Your task to perform on an android device: change text size in settings app Image 0: 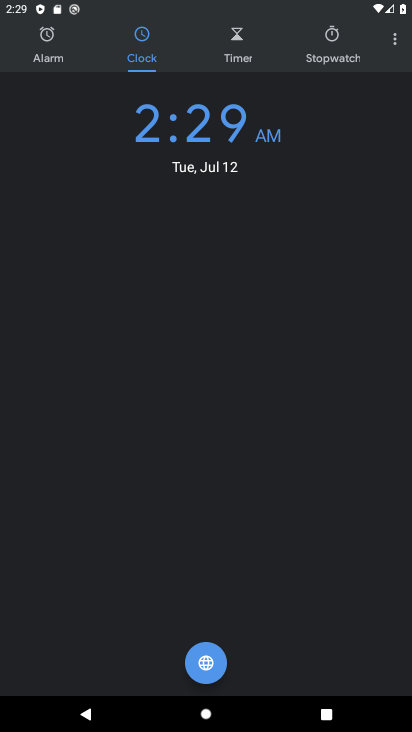
Step 0: press home button
Your task to perform on an android device: change text size in settings app Image 1: 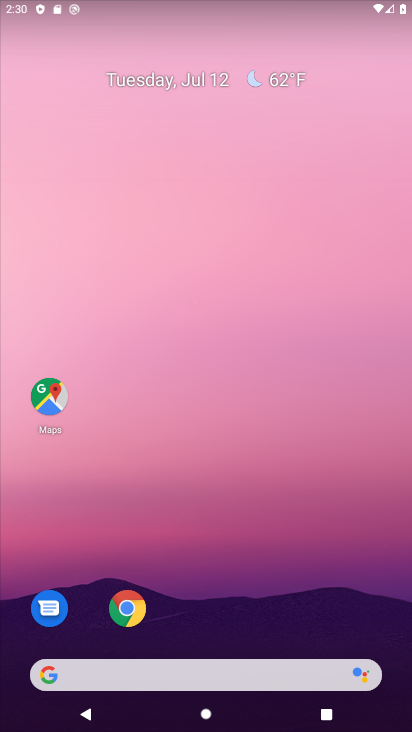
Step 1: drag from (166, 674) to (277, 238)
Your task to perform on an android device: change text size in settings app Image 2: 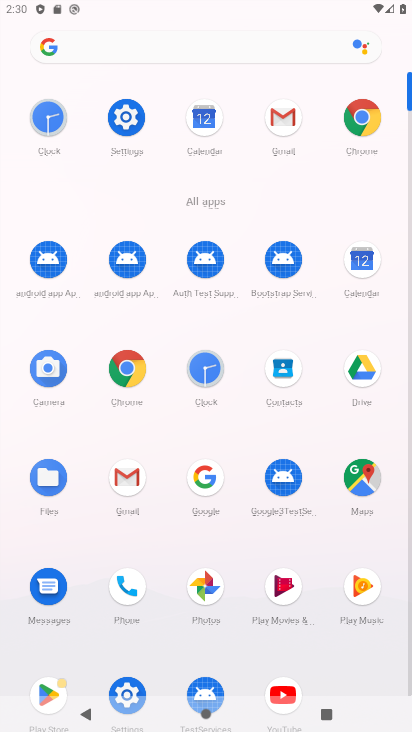
Step 2: click (127, 111)
Your task to perform on an android device: change text size in settings app Image 3: 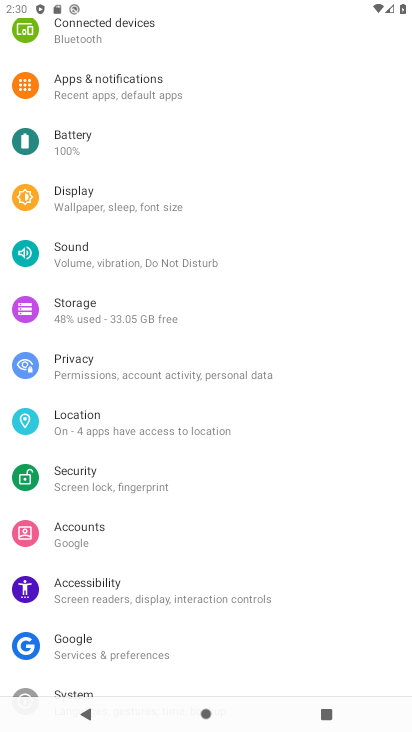
Step 3: click (158, 207)
Your task to perform on an android device: change text size in settings app Image 4: 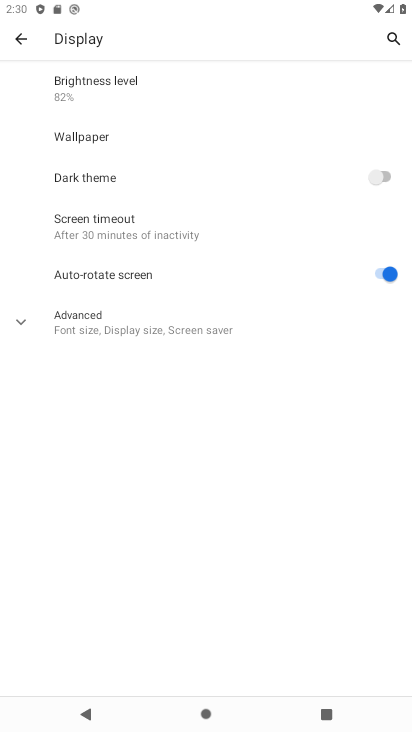
Step 4: click (99, 324)
Your task to perform on an android device: change text size in settings app Image 5: 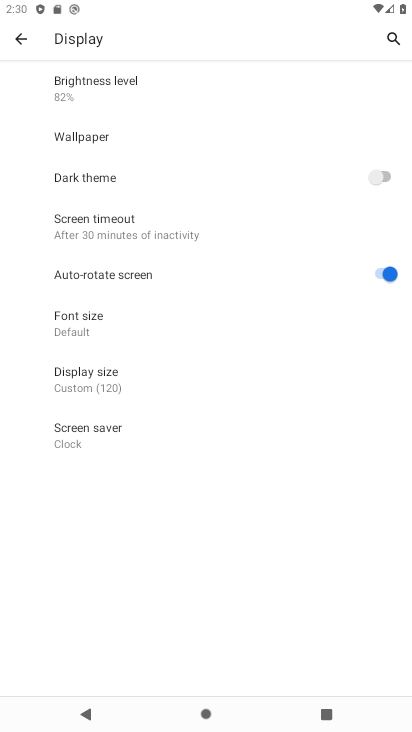
Step 5: click (86, 323)
Your task to perform on an android device: change text size in settings app Image 6: 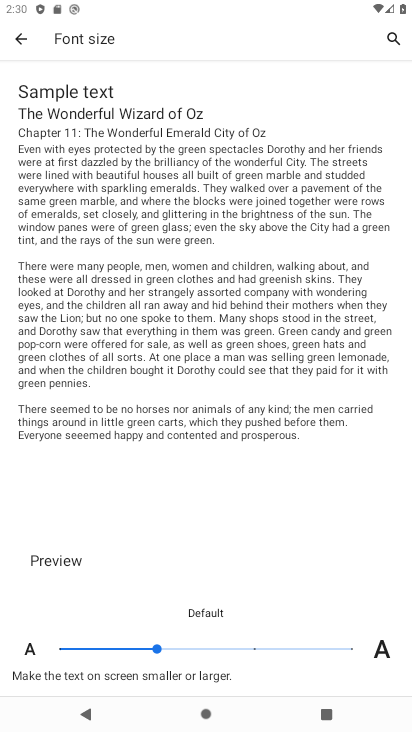
Step 6: click (249, 648)
Your task to perform on an android device: change text size in settings app Image 7: 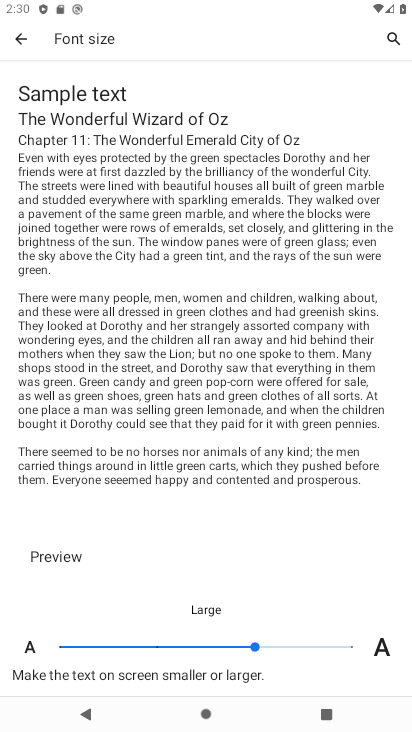
Step 7: task complete